Your task to perform on an android device: Open Google Chrome and open the bookmarks view Image 0: 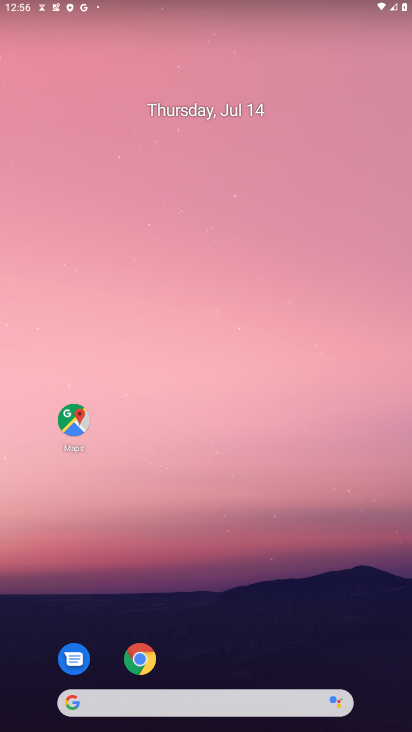
Step 0: drag from (85, 475) to (186, 130)
Your task to perform on an android device: Open Google Chrome and open the bookmarks view Image 1: 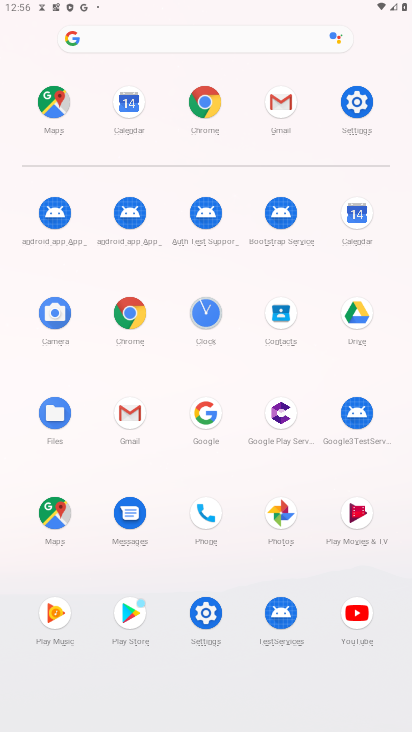
Step 1: click (209, 107)
Your task to perform on an android device: Open Google Chrome and open the bookmarks view Image 2: 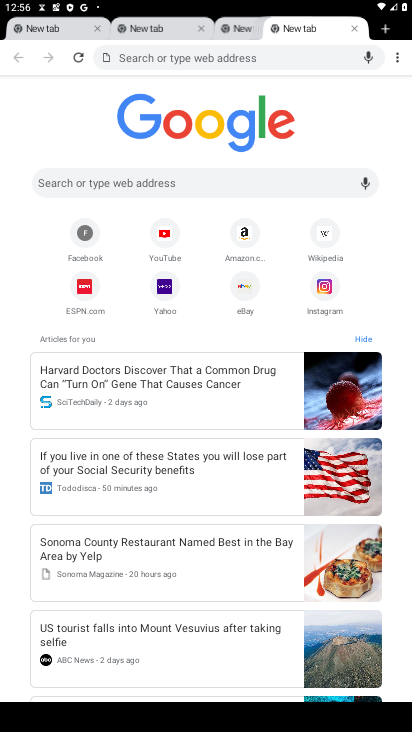
Step 2: click (396, 50)
Your task to perform on an android device: Open Google Chrome and open the bookmarks view Image 3: 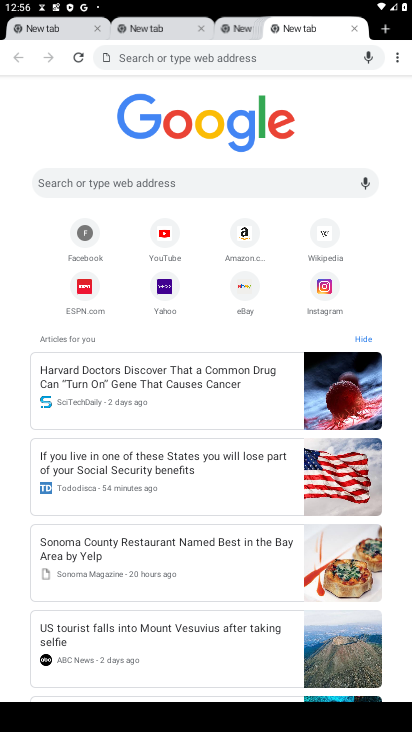
Step 3: click (397, 56)
Your task to perform on an android device: Open Google Chrome and open the bookmarks view Image 4: 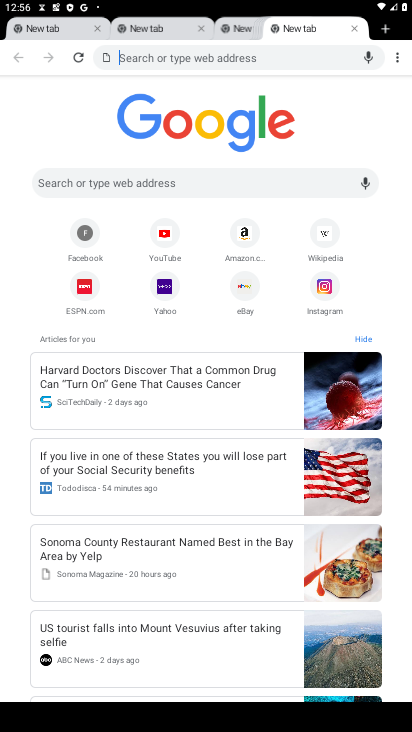
Step 4: task complete